Your task to perform on an android device: turn off smart reply in the gmail app Image 0: 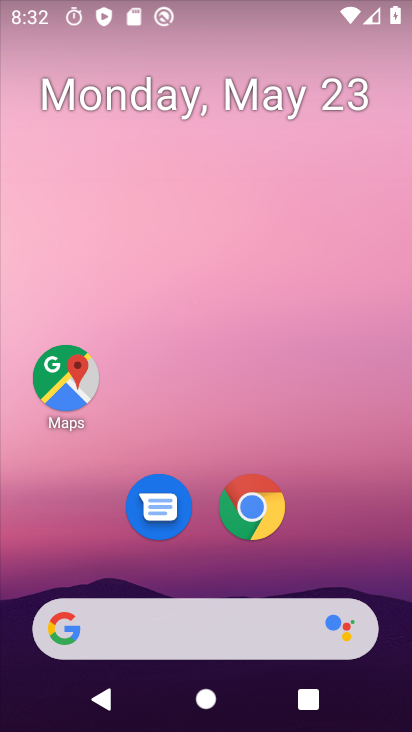
Step 0: drag from (342, 433) to (326, 12)
Your task to perform on an android device: turn off smart reply in the gmail app Image 1: 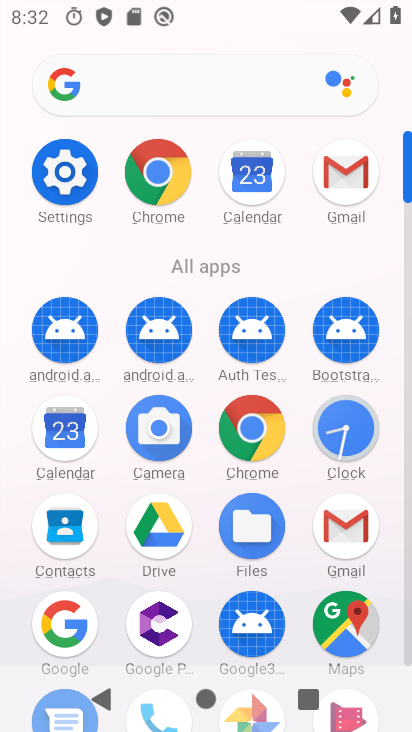
Step 1: click (355, 192)
Your task to perform on an android device: turn off smart reply in the gmail app Image 2: 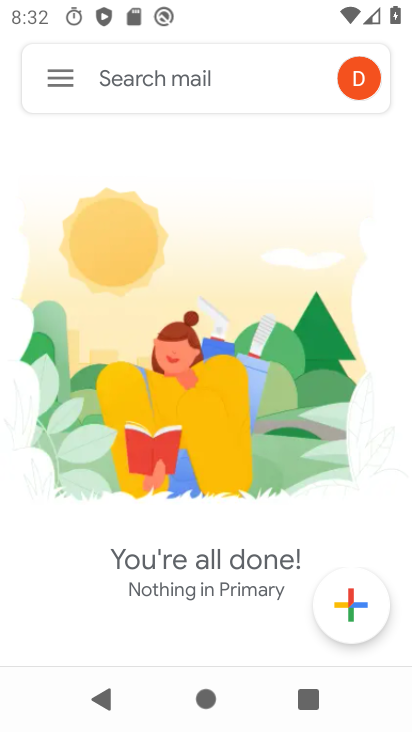
Step 2: click (54, 76)
Your task to perform on an android device: turn off smart reply in the gmail app Image 3: 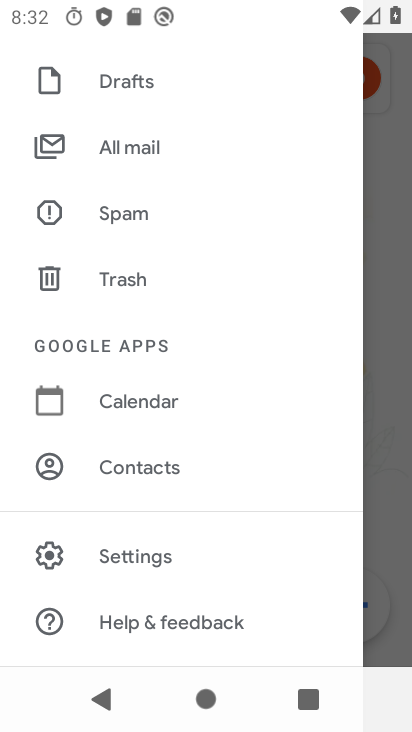
Step 3: click (119, 542)
Your task to perform on an android device: turn off smart reply in the gmail app Image 4: 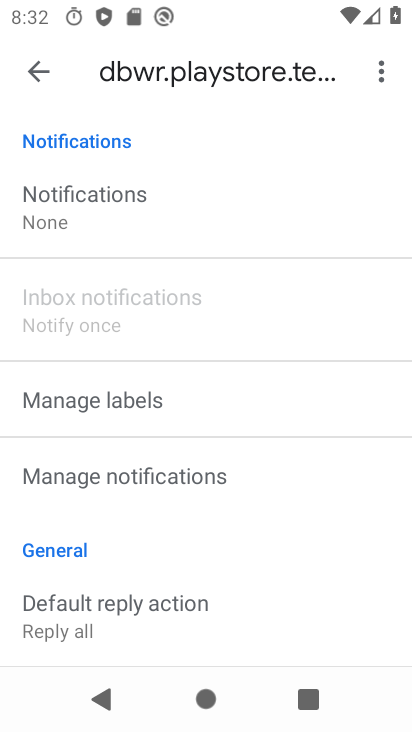
Step 4: drag from (162, 600) to (209, 224)
Your task to perform on an android device: turn off smart reply in the gmail app Image 5: 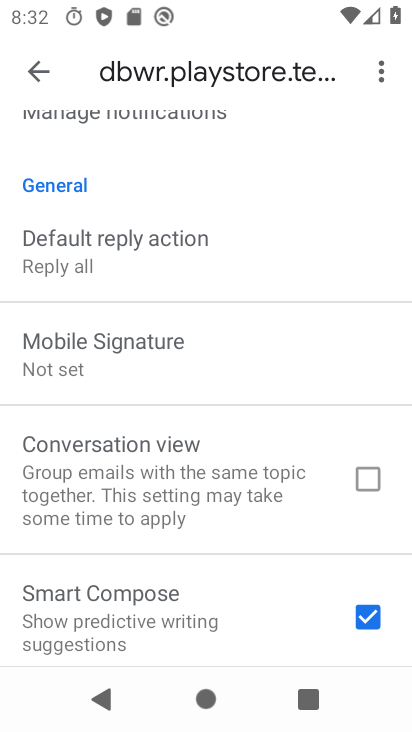
Step 5: drag from (132, 618) to (65, 131)
Your task to perform on an android device: turn off smart reply in the gmail app Image 6: 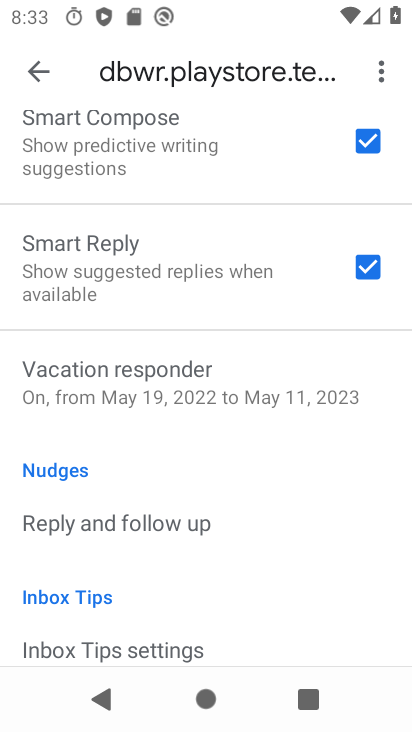
Step 6: click (368, 268)
Your task to perform on an android device: turn off smart reply in the gmail app Image 7: 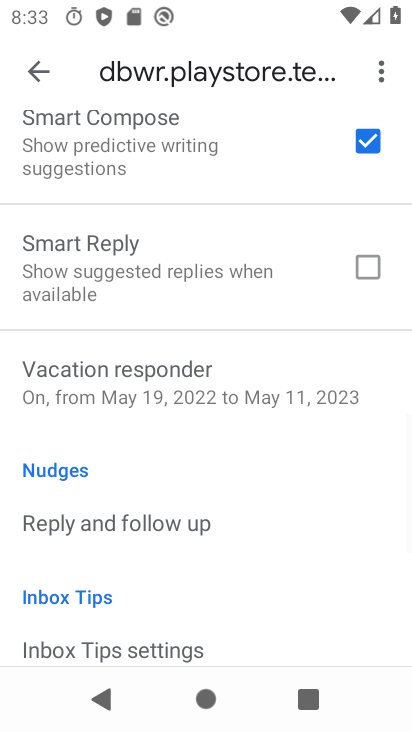
Step 7: task complete